Your task to perform on an android device: toggle show notifications on the lock screen Image 0: 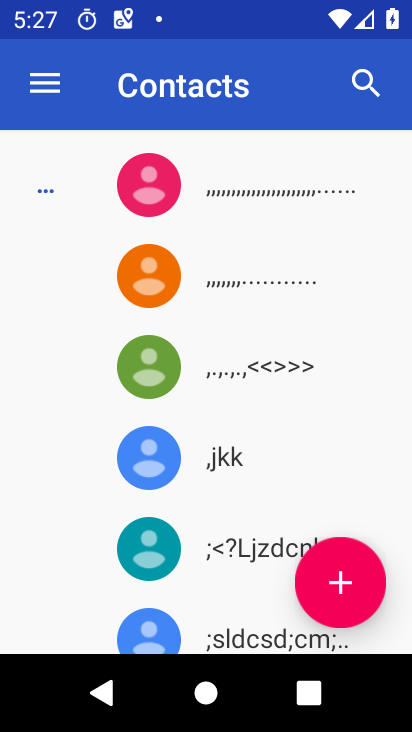
Step 0: press home button
Your task to perform on an android device: toggle show notifications on the lock screen Image 1: 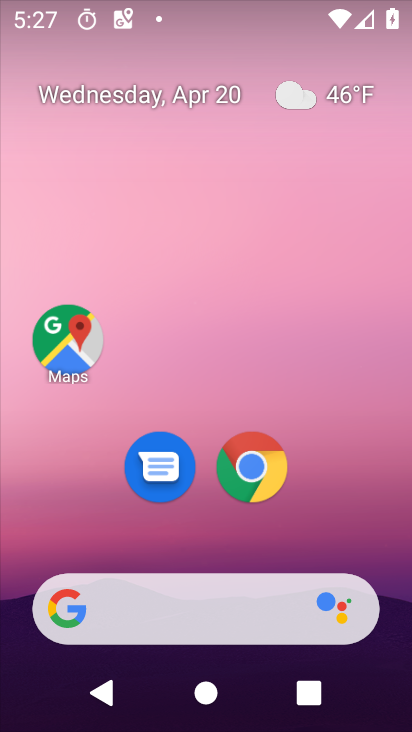
Step 1: drag from (225, 251) to (245, 99)
Your task to perform on an android device: toggle show notifications on the lock screen Image 2: 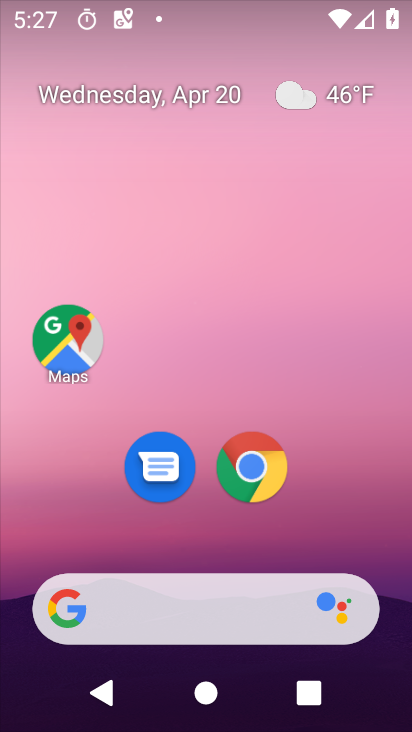
Step 2: drag from (227, 532) to (355, 1)
Your task to perform on an android device: toggle show notifications on the lock screen Image 3: 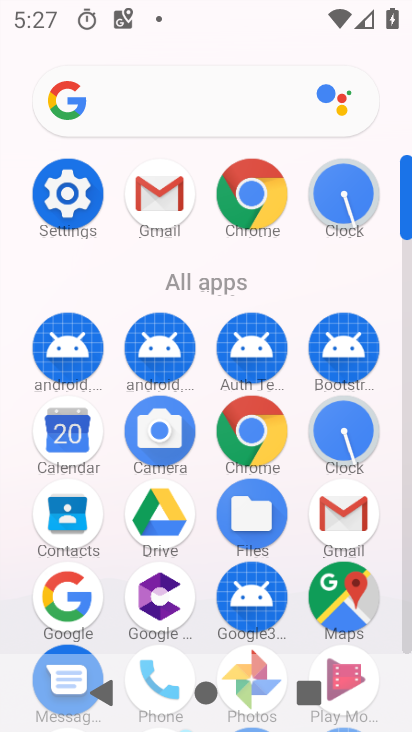
Step 3: click (50, 190)
Your task to perform on an android device: toggle show notifications on the lock screen Image 4: 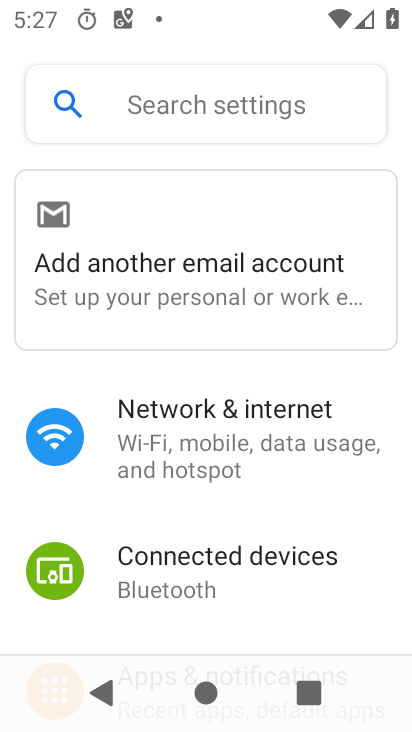
Step 4: drag from (221, 577) to (236, 262)
Your task to perform on an android device: toggle show notifications on the lock screen Image 5: 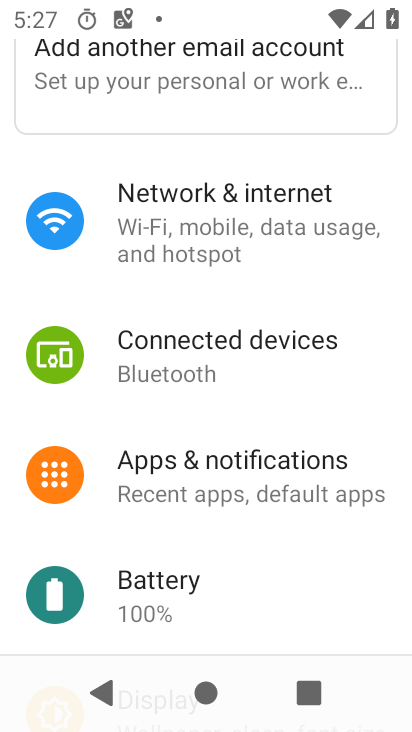
Step 5: click (194, 474)
Your task to perform on an android device: toggle show notifications on the lock screen Image 6: 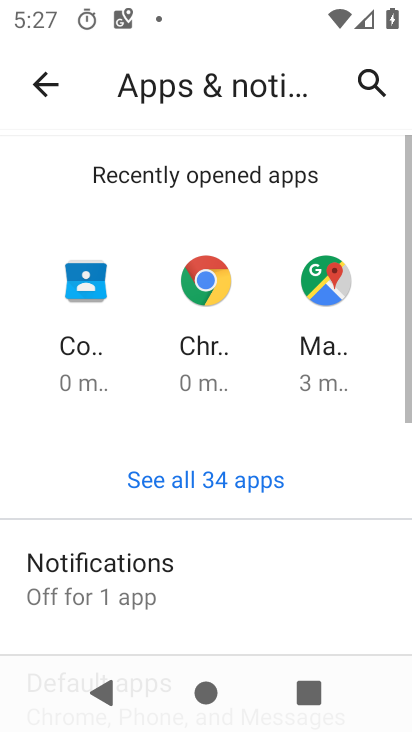
Step 6: drag from (170, 551) to (206, 266)
Your task to perform on an android device: toggle show notifications on the lock screen Image 7: 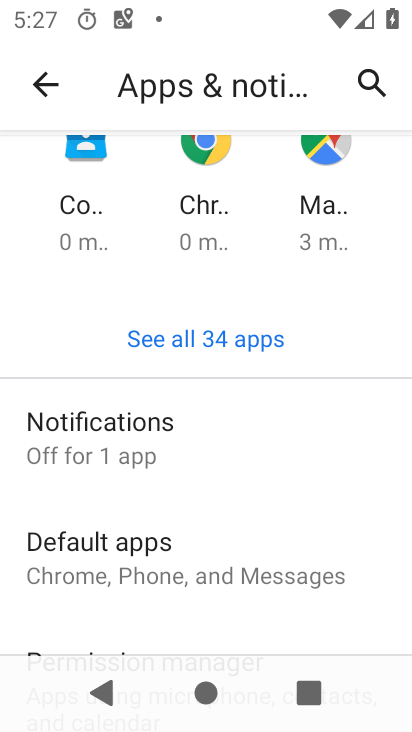
Step 7: click (87, 444)
Your task to perform on an android device: toggle show notifications on the lock screen Image 8: 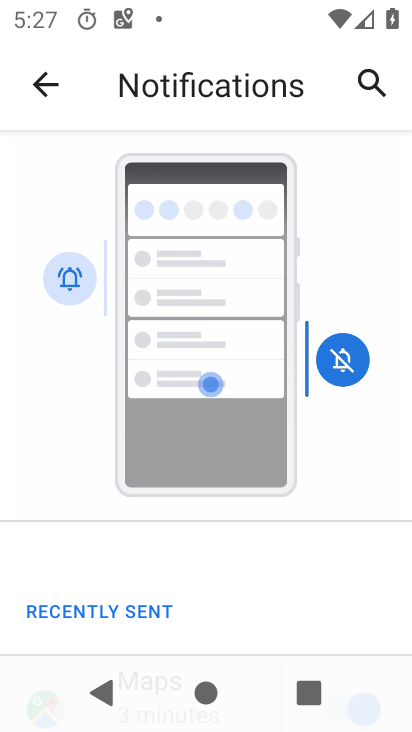
Step 8: drag from (160, 530) to (278, 126)
Your task to perform on an android device: toggle show notifications on the lock screen Image 9: 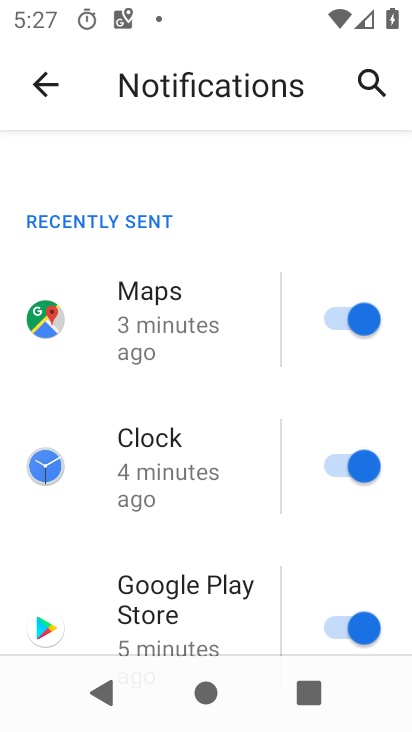
Step 9: drag from (181, 508) to (253, 54)
Your task to perform on an android device: toggle show notifications on the lock screen Image 10: 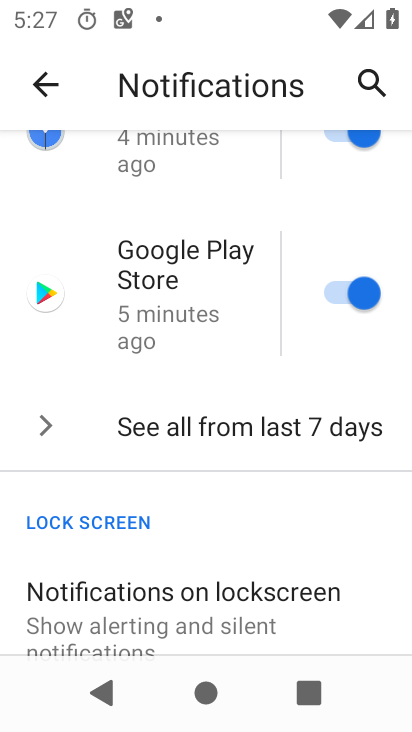
Step 10: drag from (185, 543) to (245, 135)
Your task to perform on an android device: toggle show notifications on the lock screen Image 11: 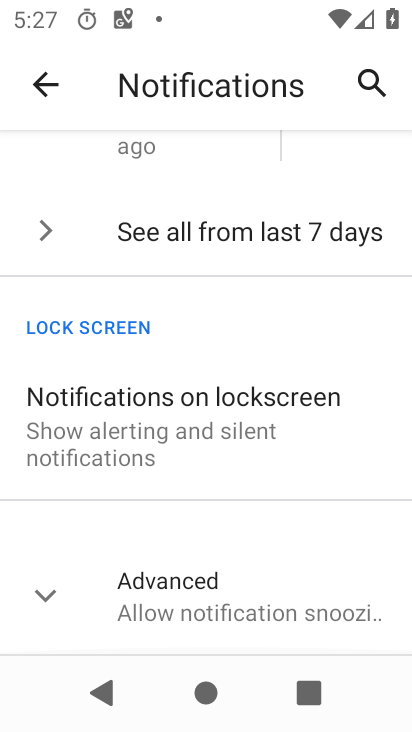
Step 11: click (129, 413)
Your task to perform on an android device: toggle show notifications on the lock screen Image 12: 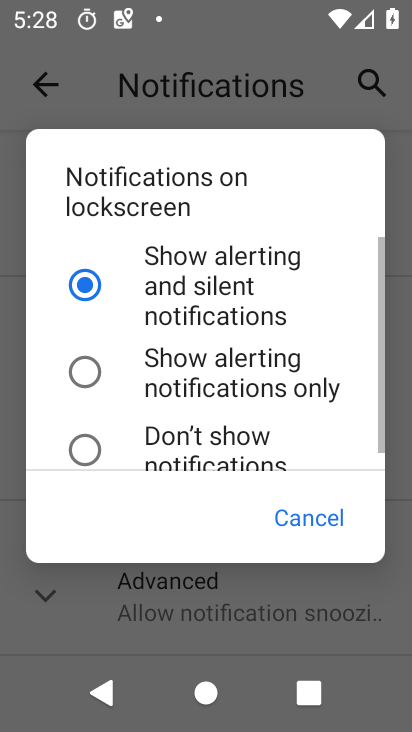
Step 12: click (86, 438)
Your task to perform on an android device: toggle show notifications on the lock screen Image 13: 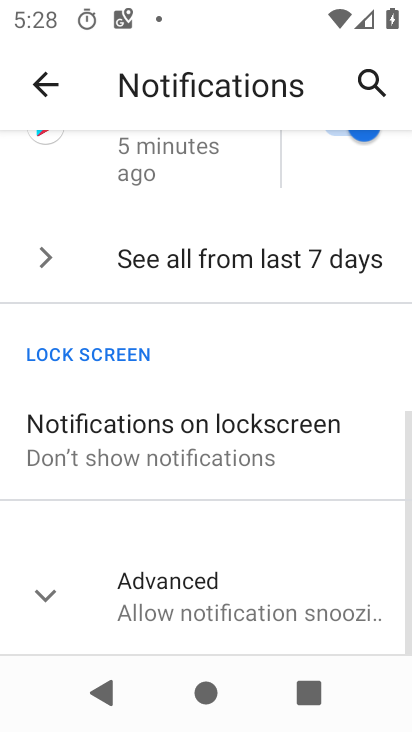
Step 13: task complete